Your task to perform on an android device: turn pop-ups off in chrome Image 0: 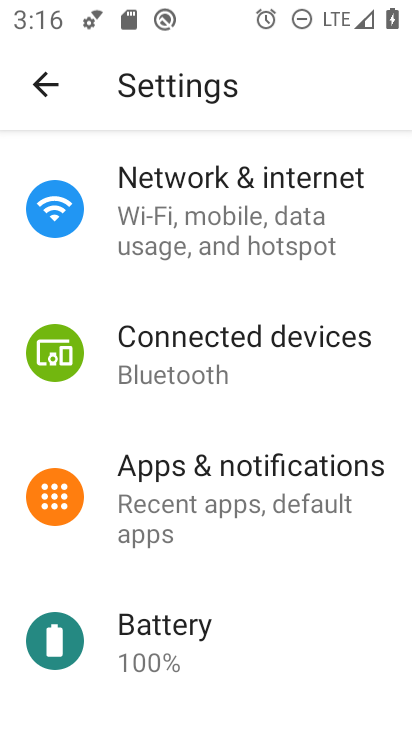
Step 0: press home button
Your task to perform on an android device: turn pop-ups off in chrome Image 1: 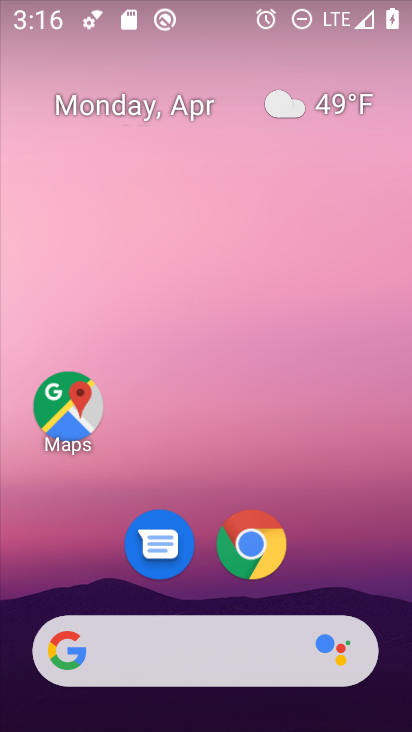
Step 1: click (266, 545)
Your task to perform on an android device: turn pop-ups off in chrome Image 2: 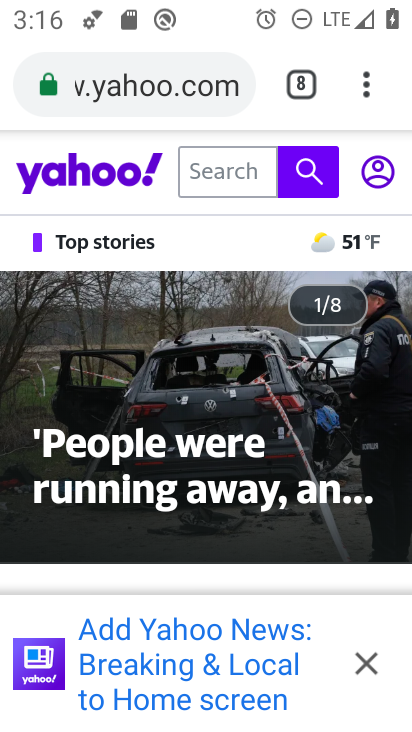
Step 2: click (374, 91)
Your task to perform on an android device: turn pop-ups off in chrome Image 3: 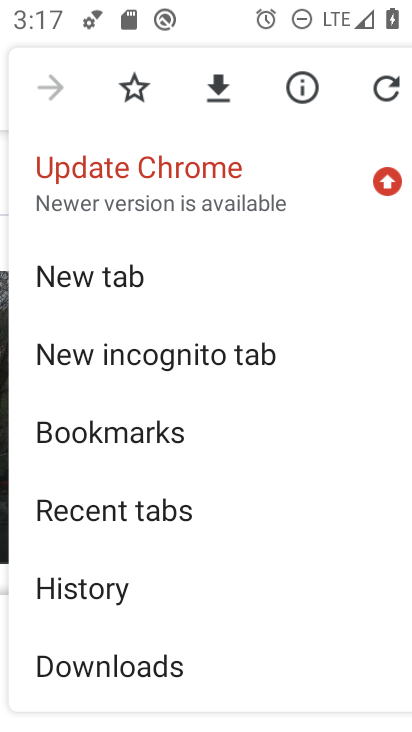
Step 3: drag from (252, 609) to (239, 314)
Your task to perform on an android device: turn pop-ups off in chrome Image 4: 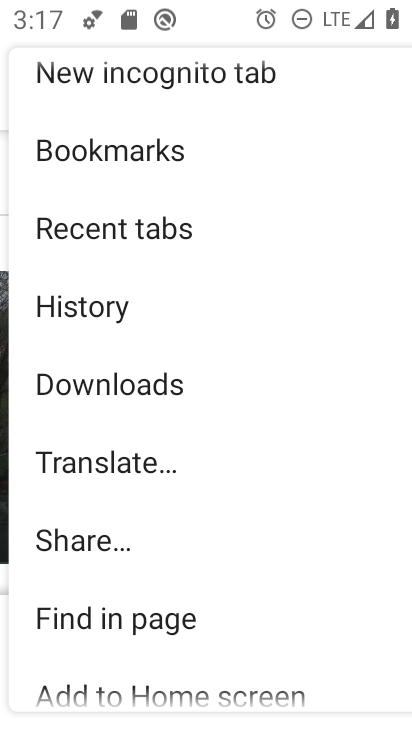
Step 4: drag from (260, 621) to (233, 173)
Your task to perform on an android device: turn pop-ups off in chrome Image 5: 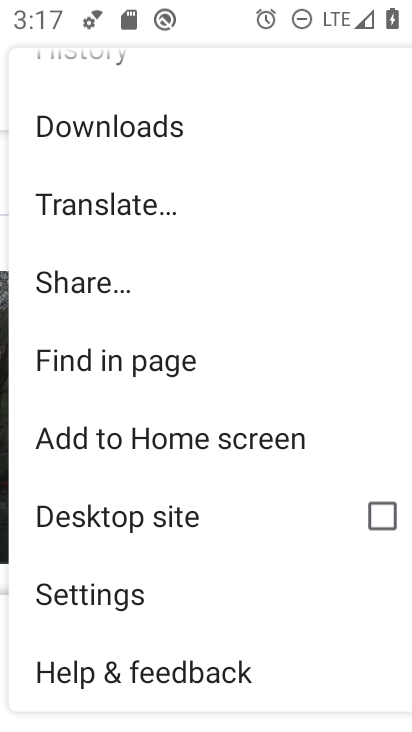
Step 5: click (105, 604)
Your task to perform on an android device: turn pop-ups off in chrome Image 6: 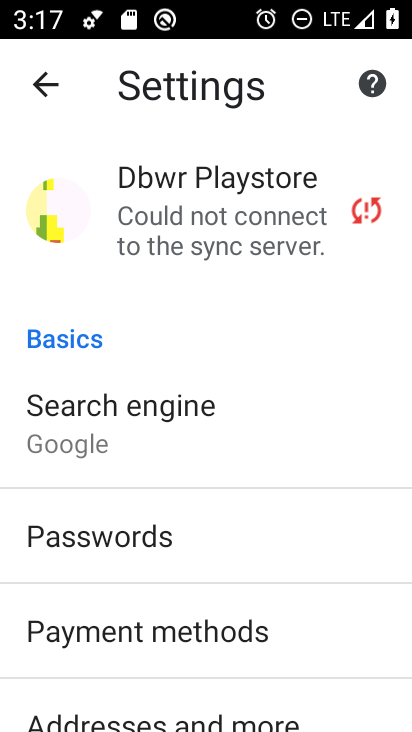
Step 6: drag from (309, 630) to (259, 324)
Your task to perform on an android device: turn pop-ups off in chrome Image 7: 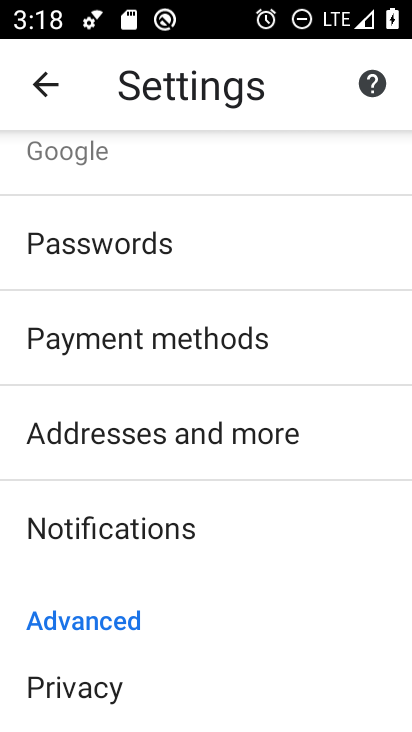
Step 7: drag from (264, 627) to (201, 242)
Your task to perform on an android device: turn pop-ups off in chrome Image 8: 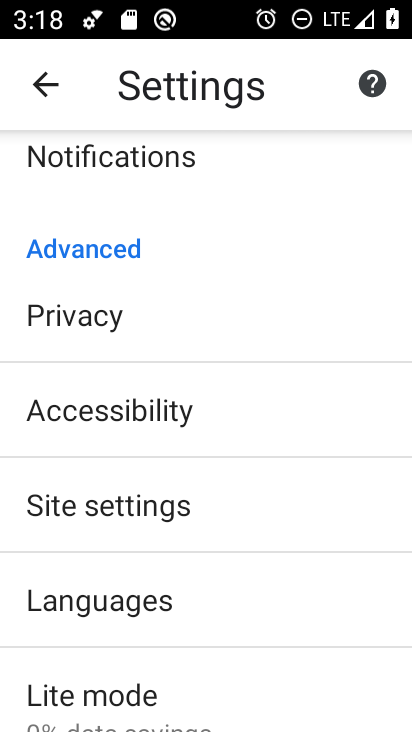
Step 8: click (148, 517)
Your task to perform on an android device: turn pop-ups off in chrome Image 9: 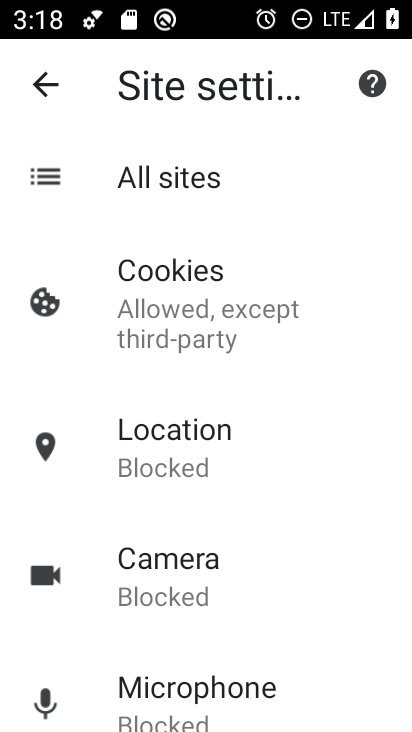
Step 9: drag from (276, 559) to (216, 209)
Your task to perform on an android device: turn pop-ups off in chrome Image 10: 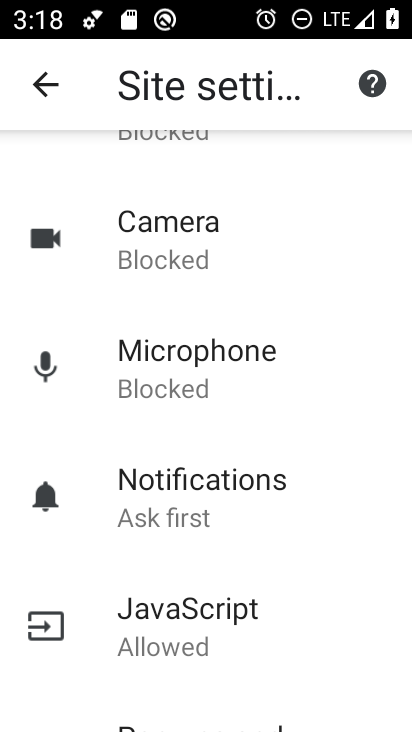
Step 10: drag from (152, 658) to (164, 231)
Your task to perform on an android device: turn pop-ups off in chrome Image 11: 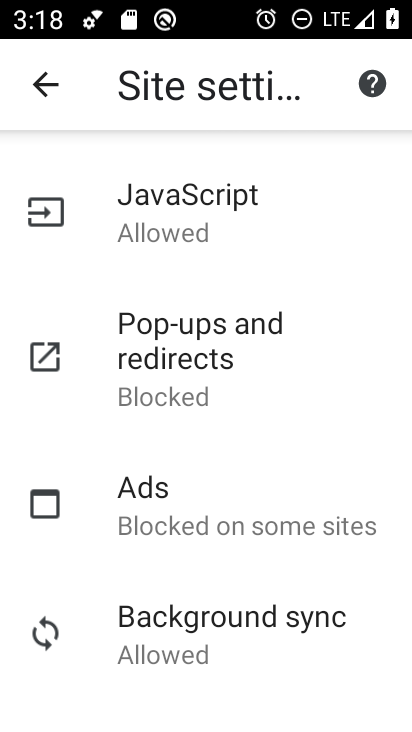
Step 11: click (180, 328)
Your task to perform on an android device: turn pop-ups off in chrome Image 12: 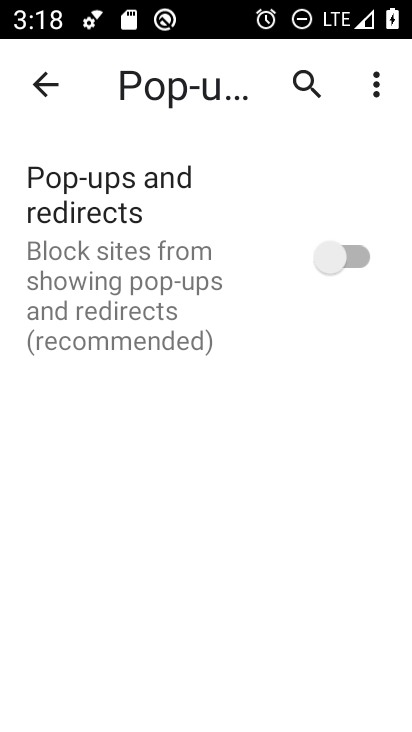
Step 12: task complete